Your task to perform on an android device: change text size in settings app Image 0: 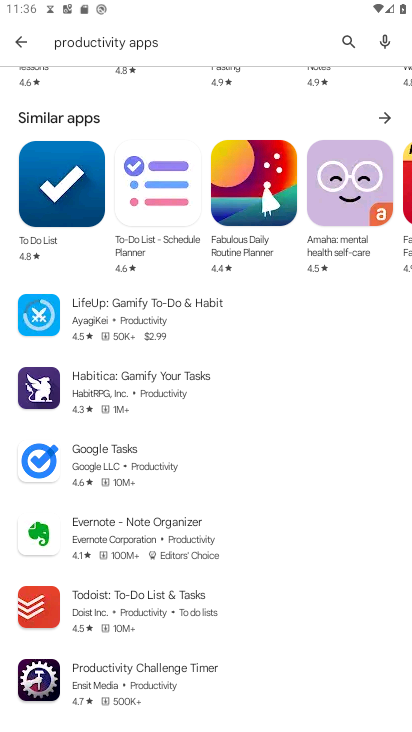
Step 0: press home button
Your task to perform on an android device: change text size in settings app Image 1: 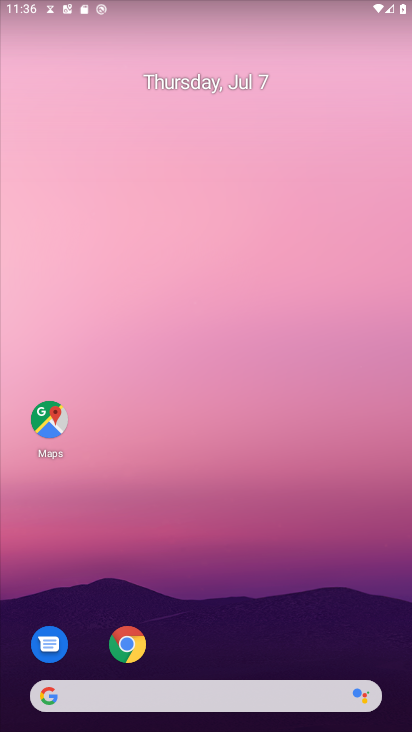
Step 1: drag from (334, 543) to (318, 109)
Your task to perform on an android device: change text size in settings app Image 2: 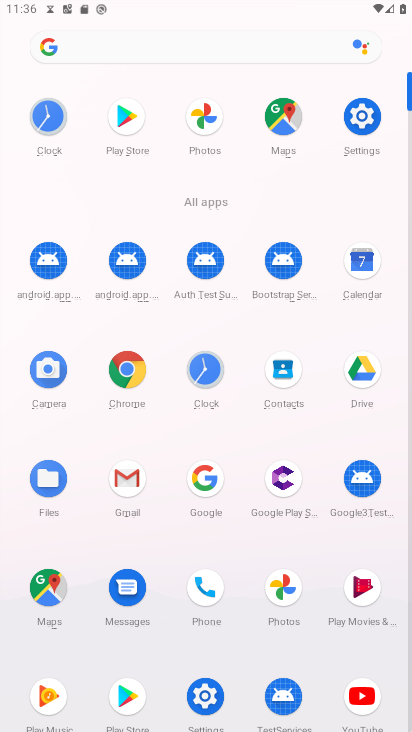
Step 2: click (361, 117)
Your task to perform on an android device: change text size in settings app Image 3: 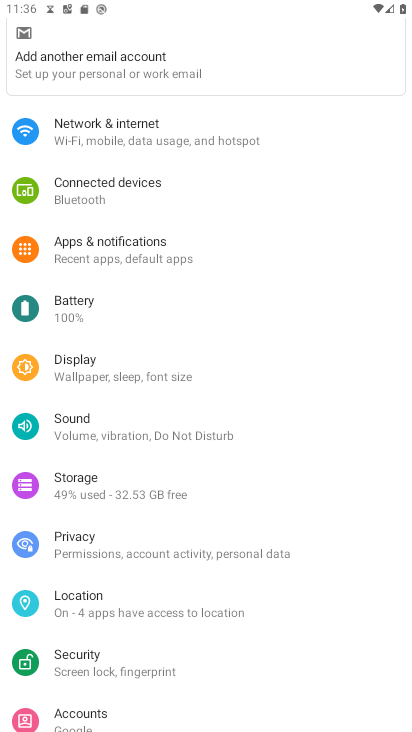
Step 3: click (102, 364)
Your task to perform on an android device: change text size in settings app Image 4: 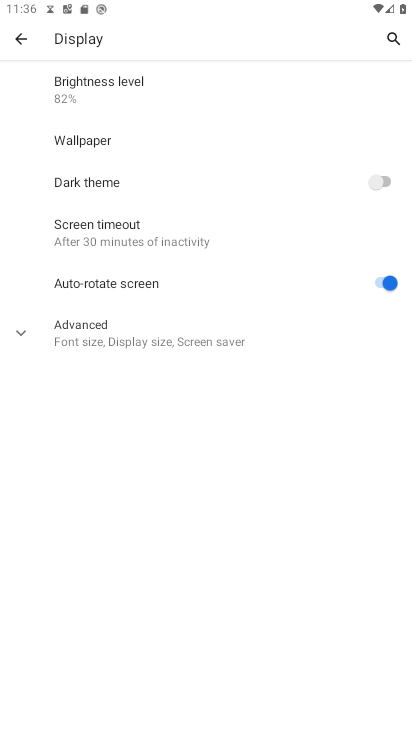
Step 4: click (110, 341)
Your task to perform on an android device: change text size in settings app Image 5: 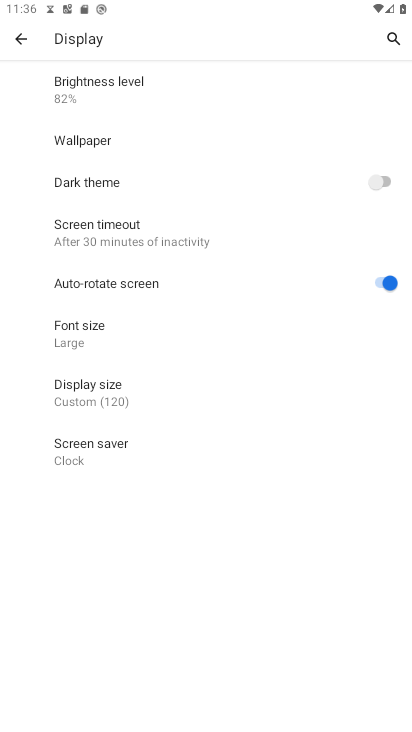
Step 5: click (110, 341)
Your task to perform on an android device: change text size in settings app Image 6: 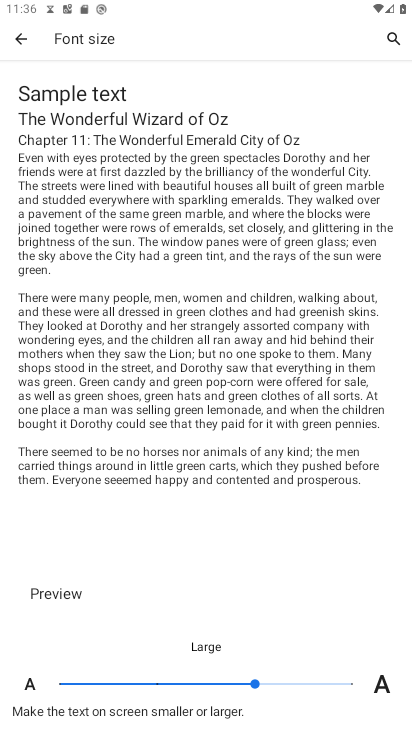
Step 6: drag from (254, 678) to (367, 683)
Your task to perform on an android device: change text size in settings app Image 7: 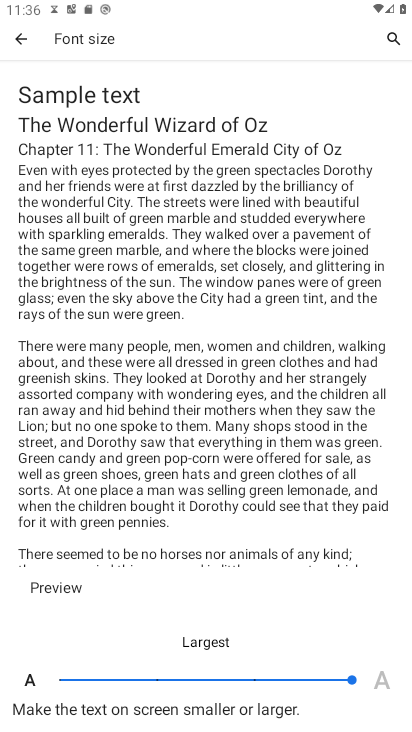
Step 7: click (22, 43)
Your task to perform on an android device: change text size in settings app Image 8: 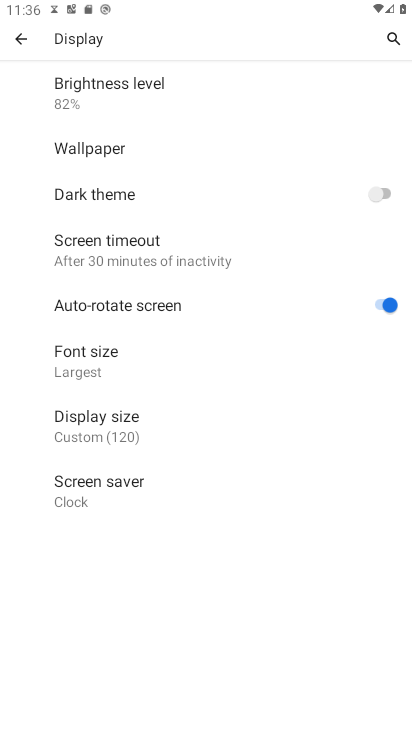
Step 8: task complete